Your task to perform on an android device: Open the web browser Image 0: 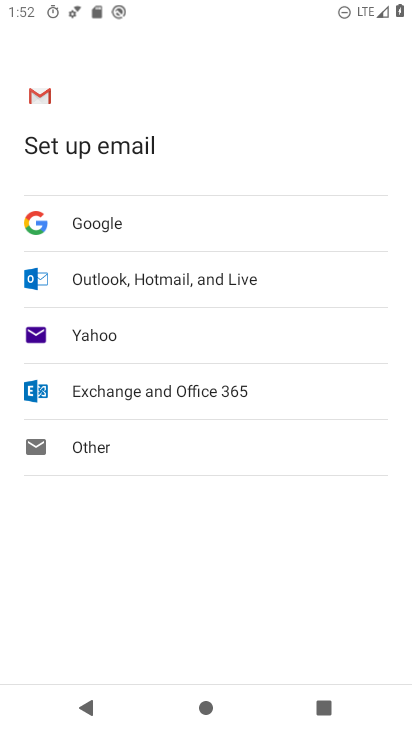
Step 0: press home button
Your task to perform on an android device: Open the web browser Image 1: 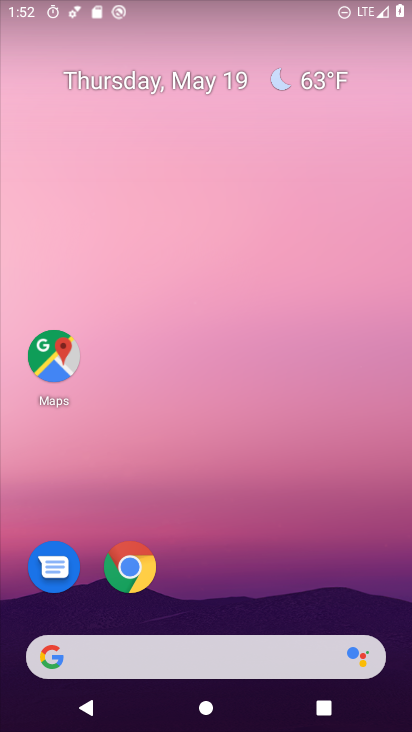
Step 1: click (133, 576)
Your task to perform on an android device: Open the web browser Image 2: 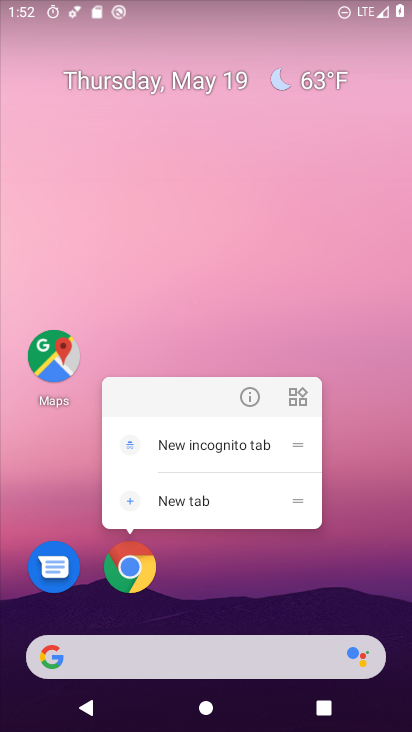
Step 2: click (127, 566)
Your task to perform on an android device: Open the web browser Image 3: 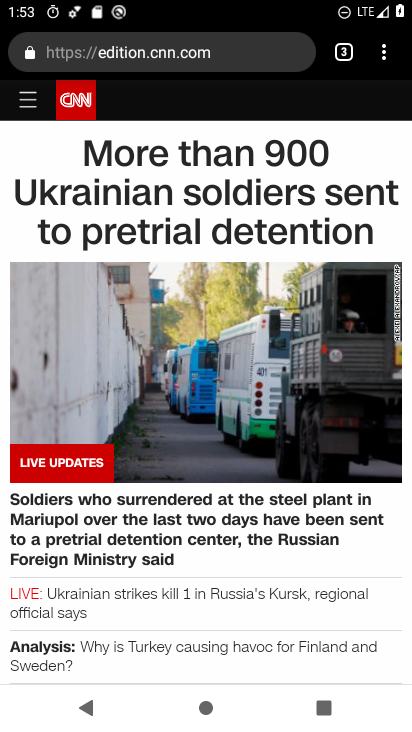
Step 3: task complete